Your task to perform on an android device: turn on airplane mode Image 0: 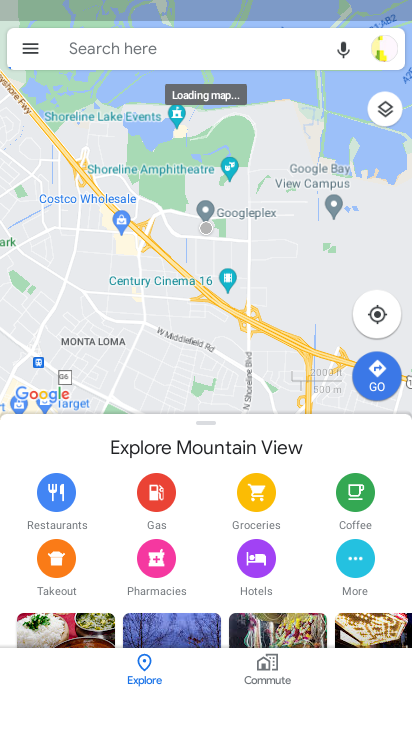
Step 0: press home button
Your task to perform on an android device: turn on airplane mode Image 1: 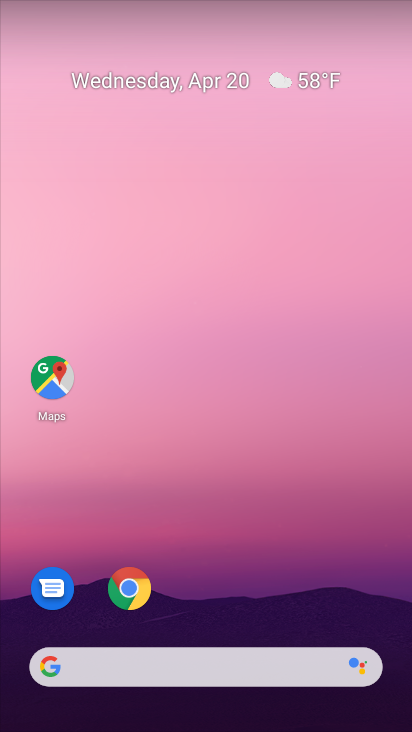
Step 1: drag from (239, 668) to (240, 124)
Your task to perform on an android device: turn on airplane mode Image 2: 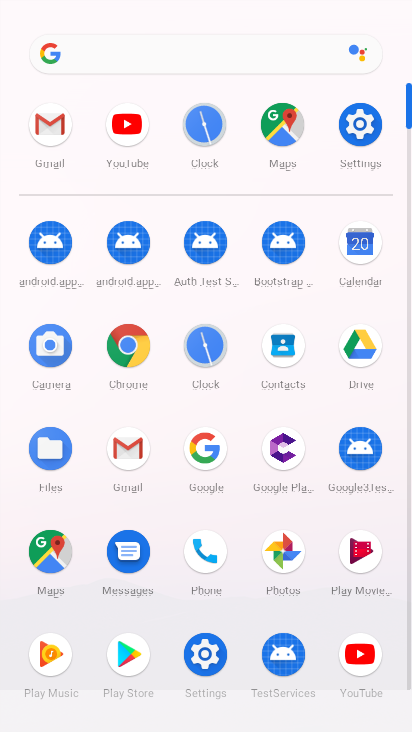
Step 2: click (361, 119)
Your task to perform on an android device: turn on airplane mode Image 3: 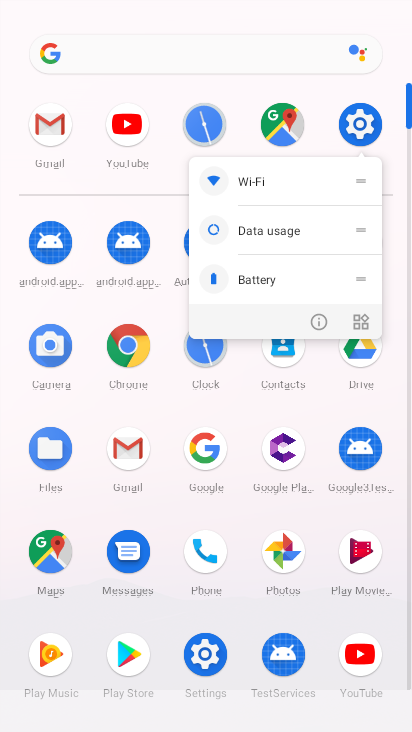
Step 3: click (361, 119)
Your task to perform on an android device: turn on airplane mode Image 4: 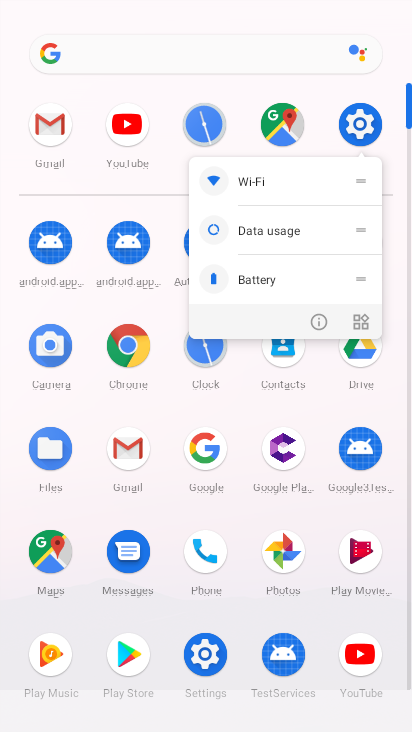
Step 4: click (354, 118)
Your task to perform on an android device: turn on airplane mode Image 5: 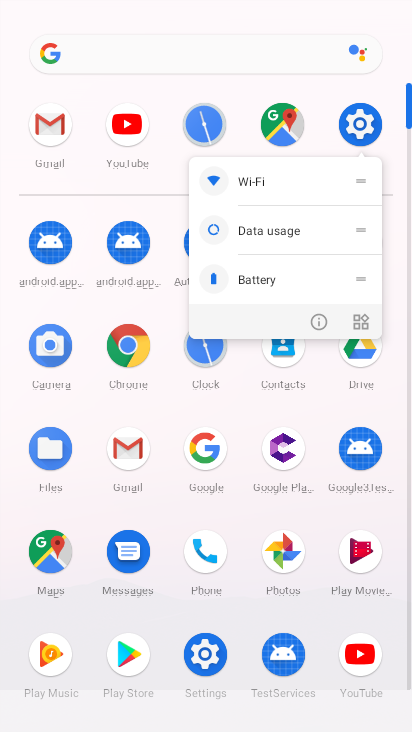
Step 5: click (354, 119)
Your task to perform on an android device: turn on airplane mode Image 6: 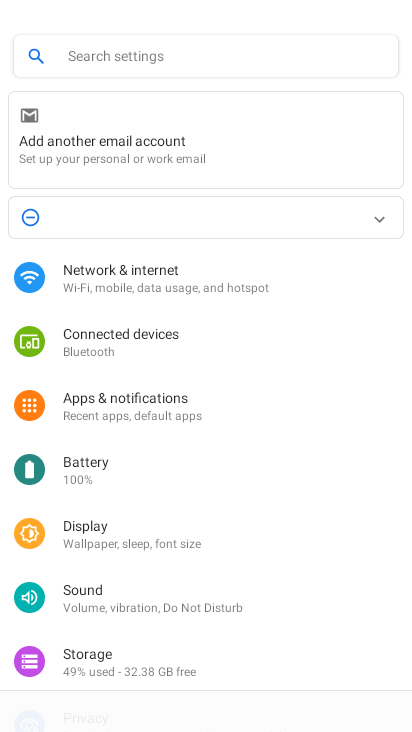
Step 6: click (114, 284)
Your task to perform on an android device: turn on airplane mode Image 7: 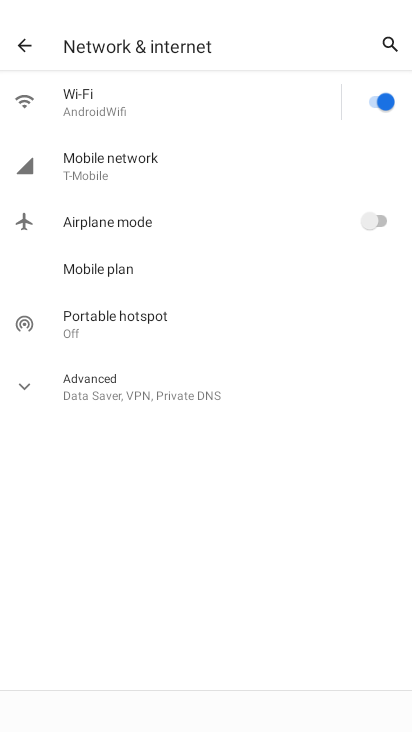
Step 7: click (385, 220)
Your task to perform on an android device: turn on airplane mode Image 8: 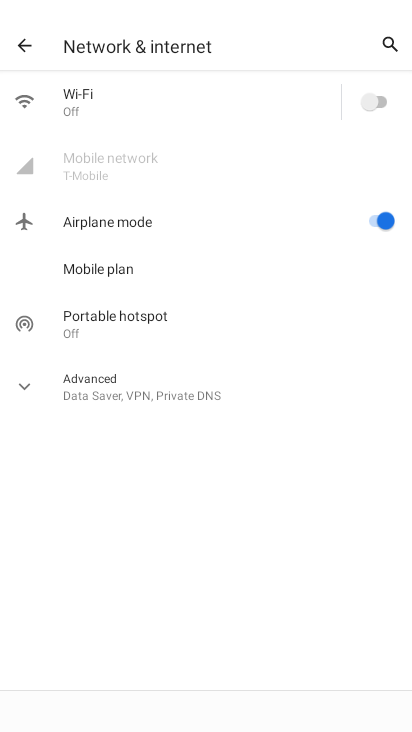
Step 8: task complete